Your task to perform on an android device: snooze an email in the gmail app Image 0: 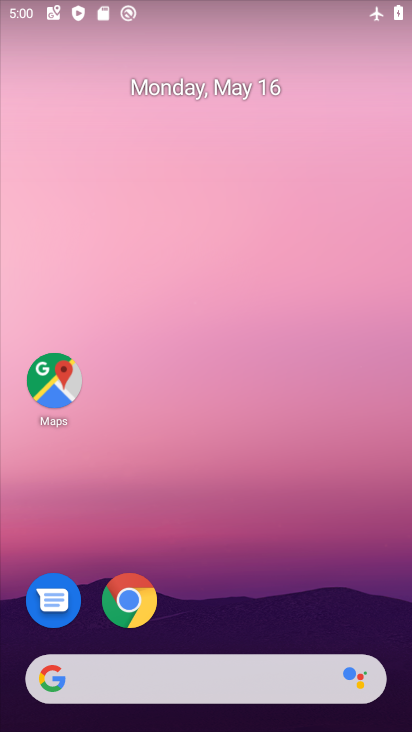
Step 0: drag from (170, 645) to (126, 0)
Your task to perform on an android device: snooze an email in the gmail app Image 1: 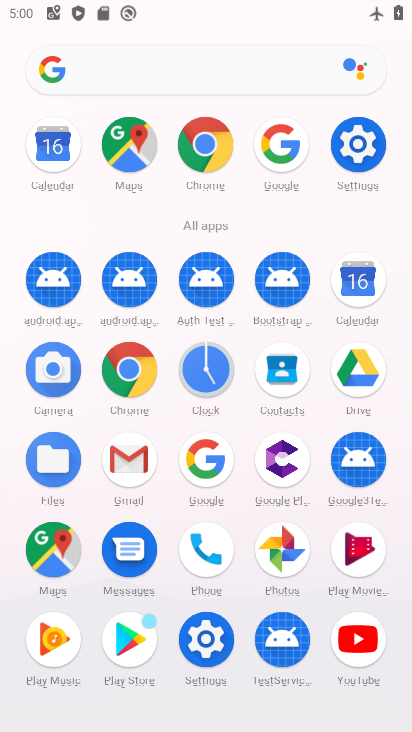
Step 1: click (130, 461)
Your task to perform on an android device: snooze an email in the gmail app Image 2: 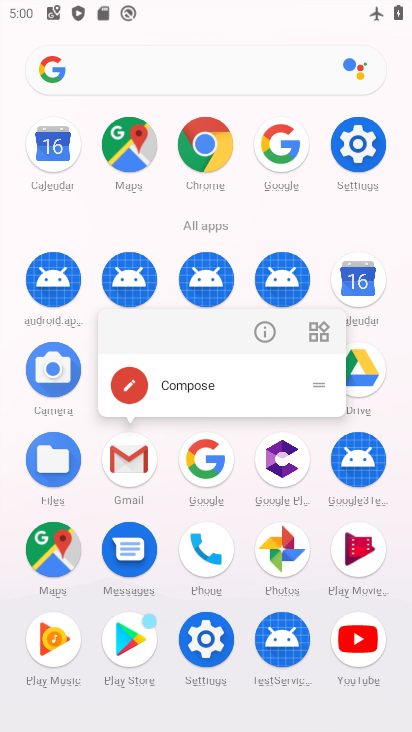
Step 2: click (136, 461)
Your task to perform on an android device: snooze an email in the gmail app Image 3: 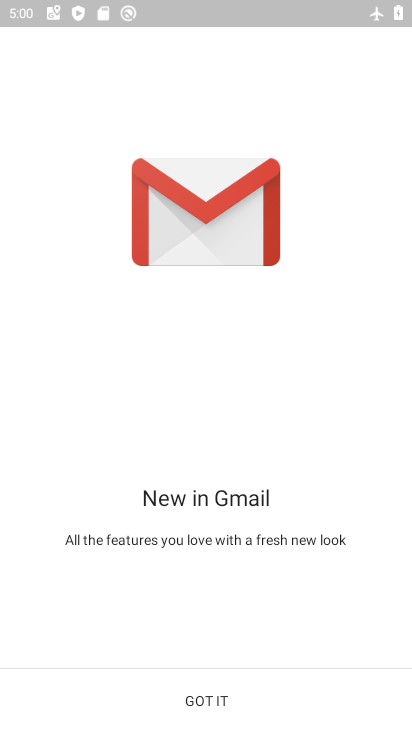
Step 3: click (204, 693)
Your task to perform on an android device: snooze an email in the gmail app Image 4: 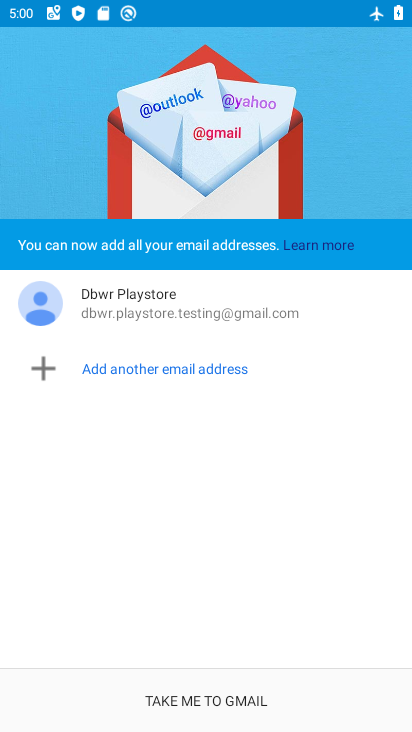
Step 4: click (203, 693)
Your task to perform on an android device: snooze an email in the gmail app Image 5: 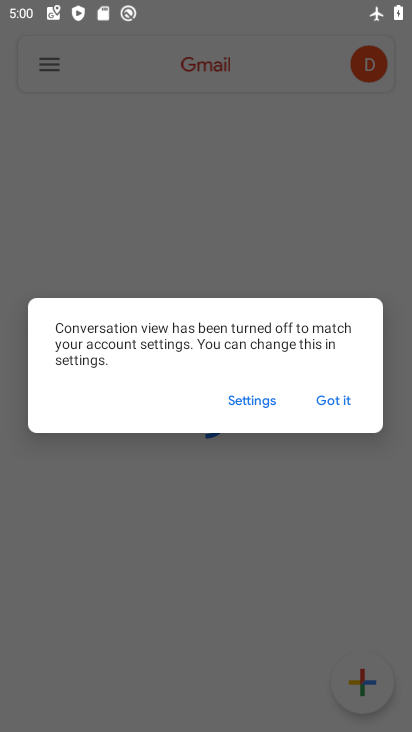
Step 5: click (324, 404)
Your task to perform on an android device: snooze an email in the gmail app Image 6: 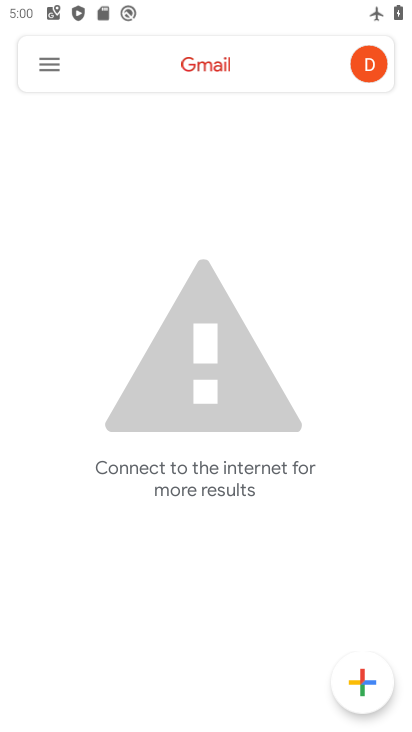
Step 6: click (52, 68)
Your task to perform on an android device: snooze an email in the gmail app Image 7: 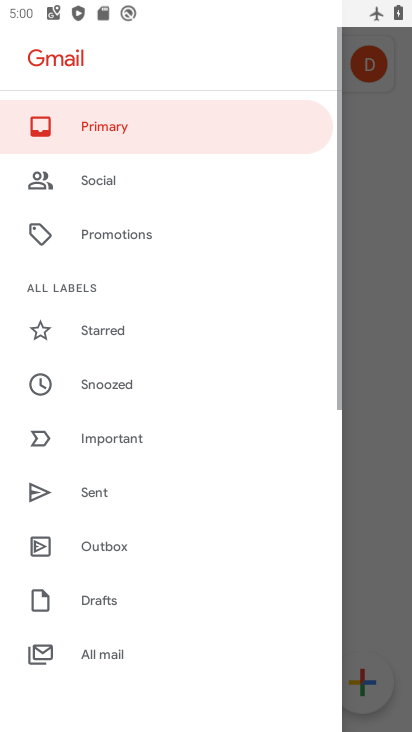
Step 7: task complete